Your task to perform on an android device: Go to notification settings Image 0: 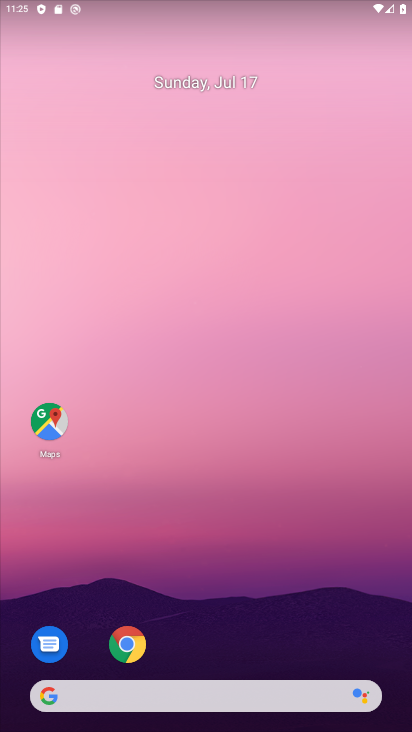
Step 0: drag from (392, 660) to (335, 117)
Your task to perform on an android device: Go to notification settings Image 1: 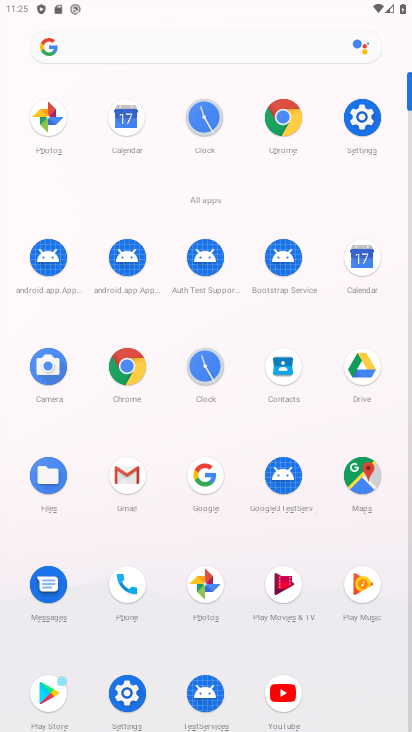
Step 1: click (350, 120)
Your task to perform on an android device: Go to notification settings Image 2: 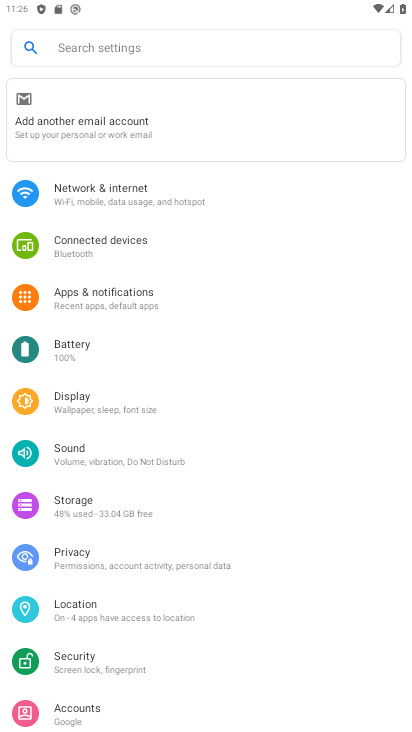
Step 2: click (100, 293)
Your task to perform on an android device: Go to notification settings Image 3: 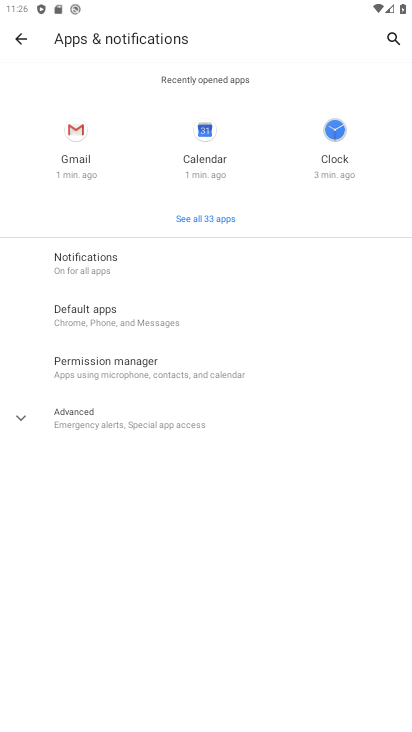
Step 3: click (95, 273)
Your task to perform on an android device: Go to notification settings Image 4: 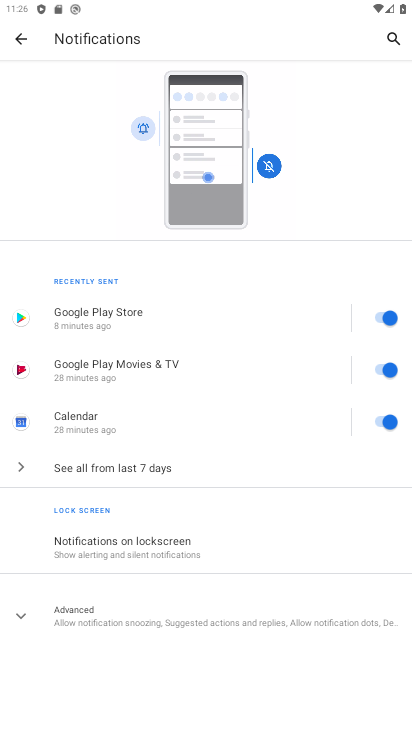
Step 4: task complete